Your task to perform on an android device: turn off improve location accuracy Image 0: 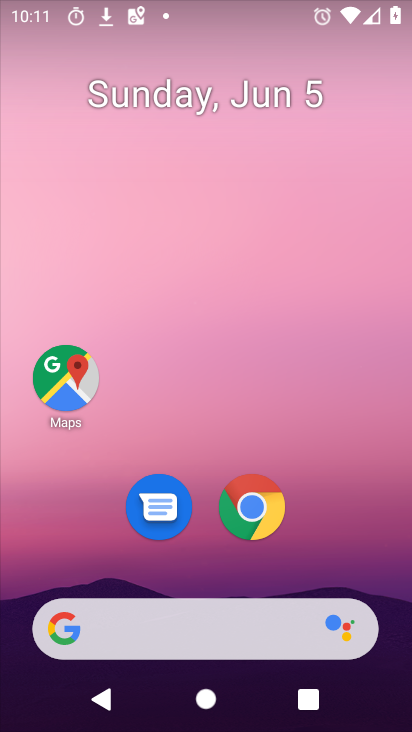
Step 0: press home button
Your task to perform on an android device: turn off improve location accuracy Image 1: 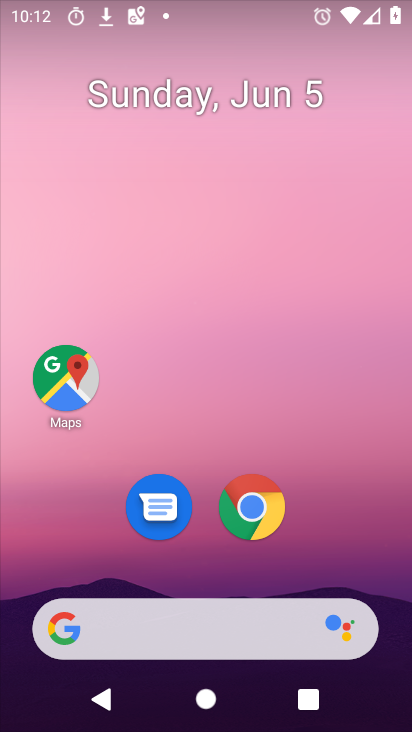
Step 1: drag from (283, 652) to (212, 313)
Your task to perform on an android device: turn off improve location accuracy Image 2: 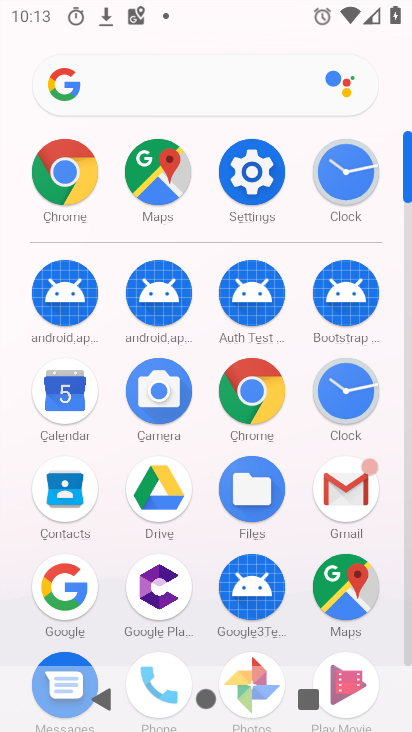
Step 2: drag from (260, 186) to (258, 370)
Your task to perform on an android device: turn off improve location accuracy Image 3: 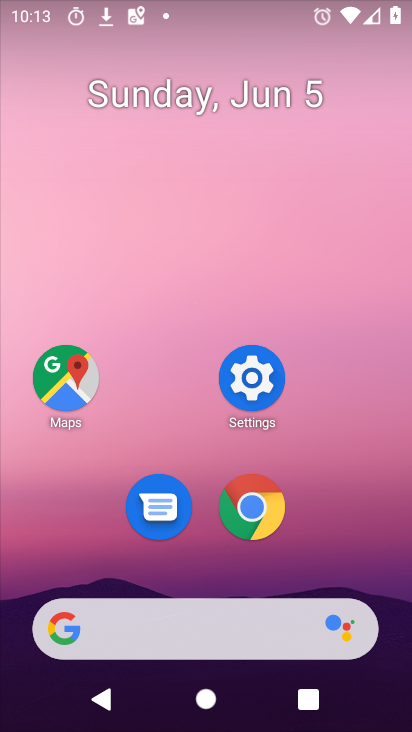
Step 3: click (253, 368)
Your task to perform on an android device: turn off improve location accuracy Image 4: 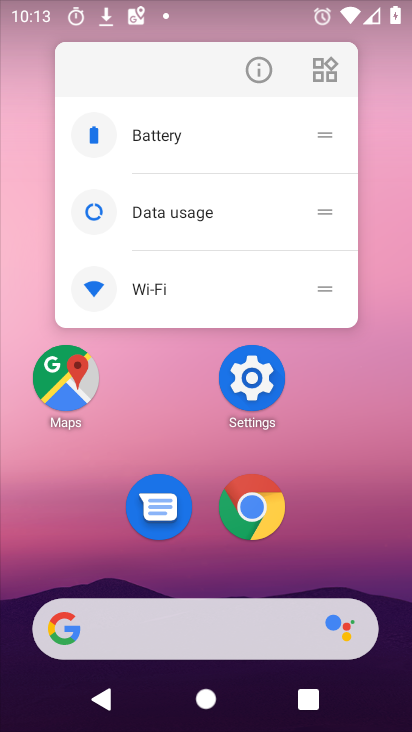
Step 4: click (253, 369)
Your task to perform on an android device: turn off improve location accuracy Image 5: 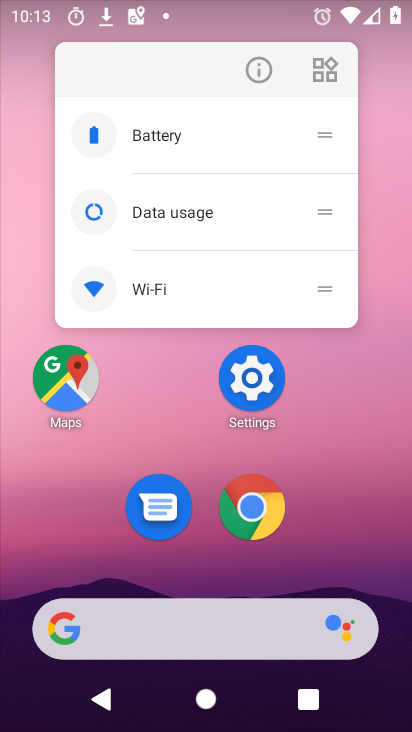
Step 5: click (245, 389)
Your task to perform on an android device: turn off improve location accuracy Image 6: 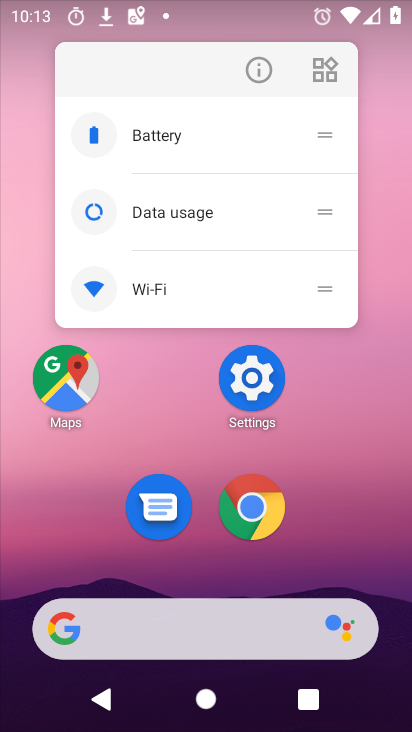
Step 6: click (237, 394)
Your task to perform on an android device: turn off improve location accuracy Image 7: 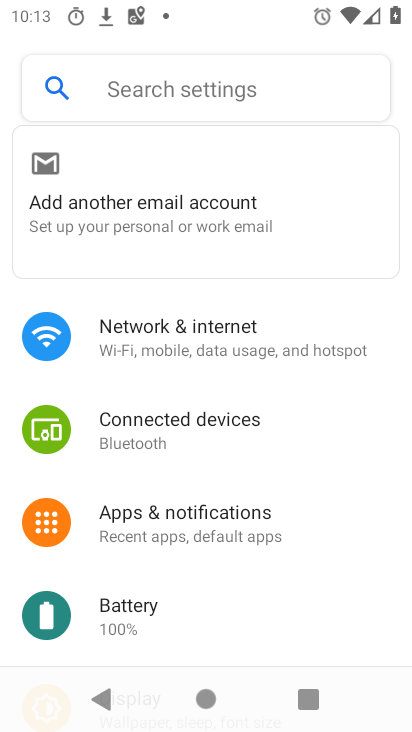
Step 7: click (196, 84)
Your task to perform on an android device: turn off improve location accuracy Image 8: 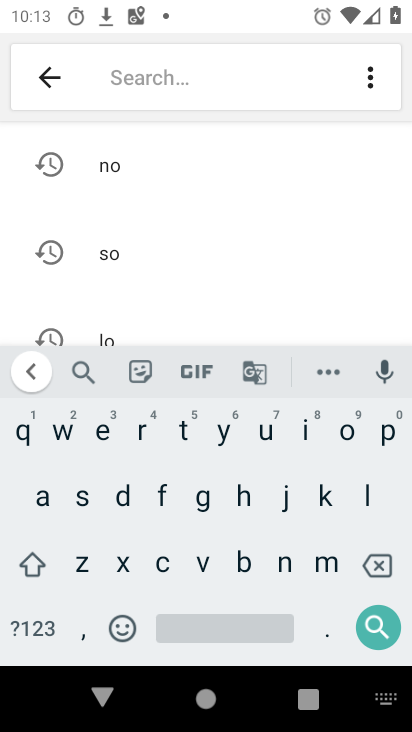
Step 8: click (362, 497)
Your task to perform on an android device: turn off improve location accuracy Image 9: 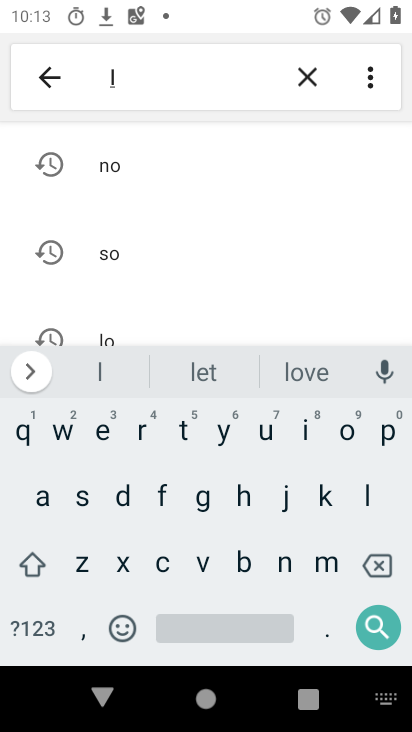
Step 9: click (345, 432)
Your task to perform on an android device: turn off improve location accuracy Image 10: 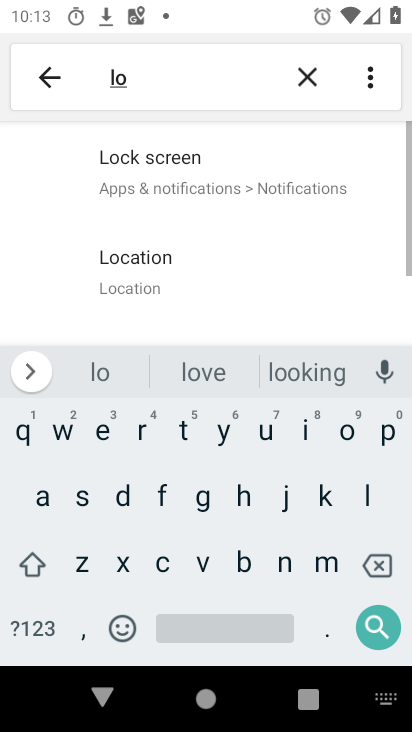
Step 10: click (154, 257)
Your task to perform on an android device: turn off improve location accuracy Image 11: 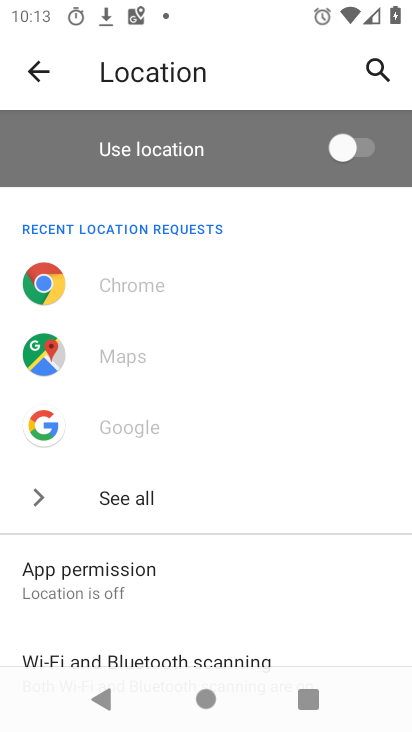
Step 11: drag from (125, 545) to (130, 243)
Your task to perform on an android device: turn off improve location accuracy Image 12: 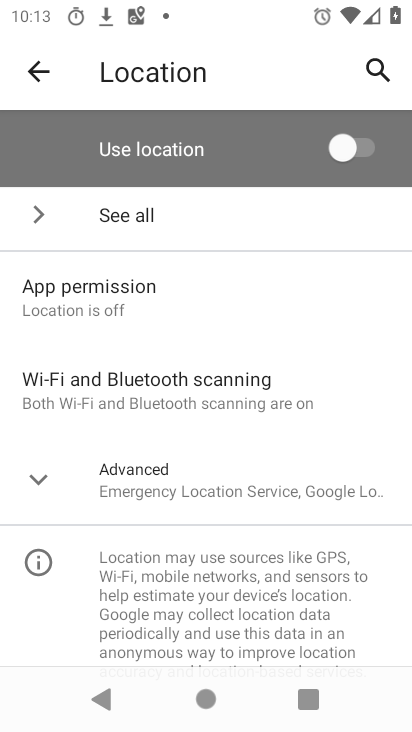
Step 12: click (58, 502)
Your task to perform on an android device: turn off improve location accuracy Image 13: 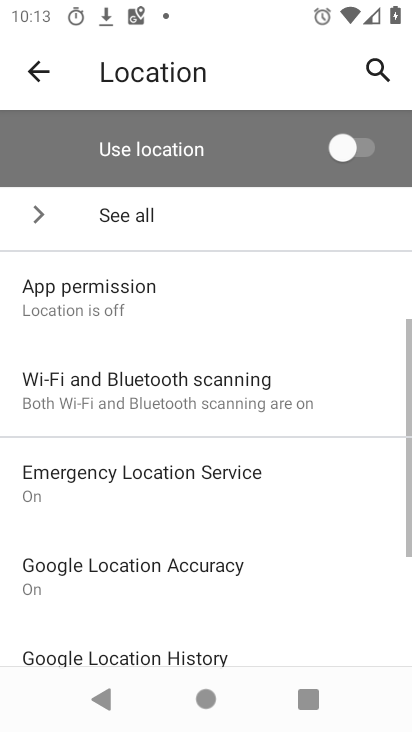
Step 13: click (142, 556)
Your task to perform on an android device: turn off improve location accuracy Image 14: 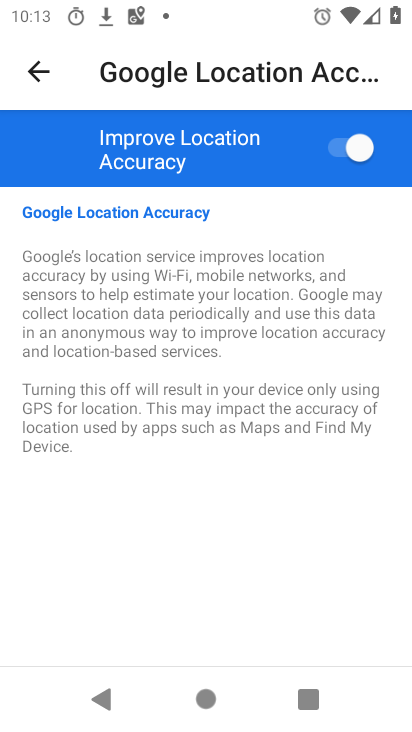
Step 14: click (334, 143)
Your task to perform on an android device: turn off improve location accuracy Image 15: 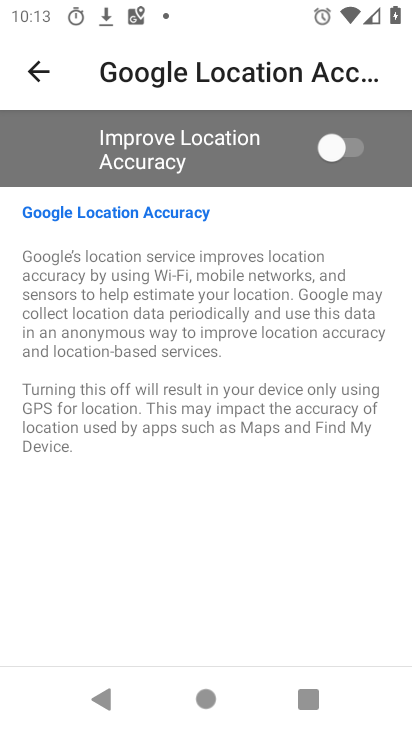
Step 15: task complete